Your task to perform on an android device: turn on priority inbox in the gmail app Image 0: 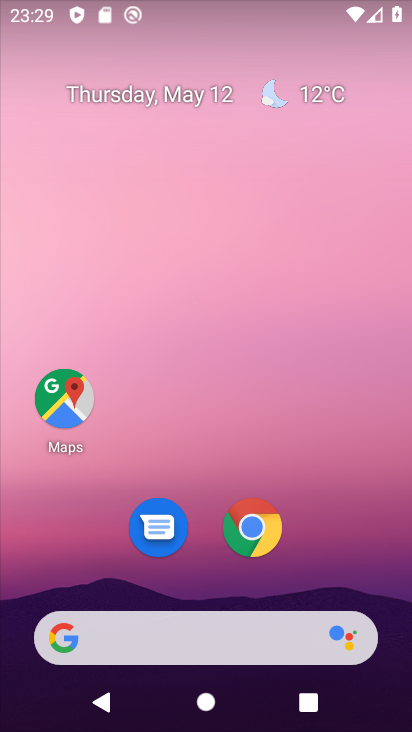
Step 0: drag from (40, 624) to (222, 176)
Your task to perform on an android device: turn on priority inbox in the gmail app Image 1: 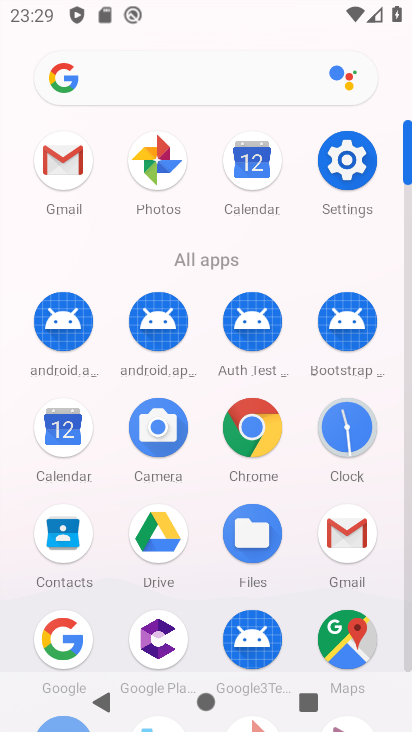
Step 1: click (51, 158)
Your task to perform on an android device: turn on priority inbox in the gmail app Image 2: 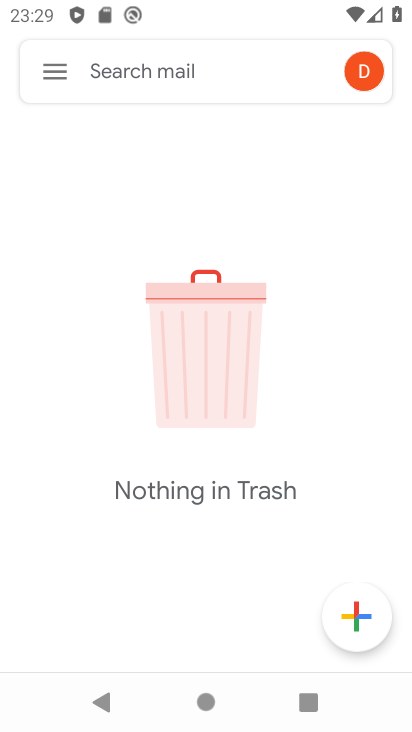
Step 2: click (64, 69)
Your task to perform on an android device: turn on priority inbox in the gmail app Image 3: 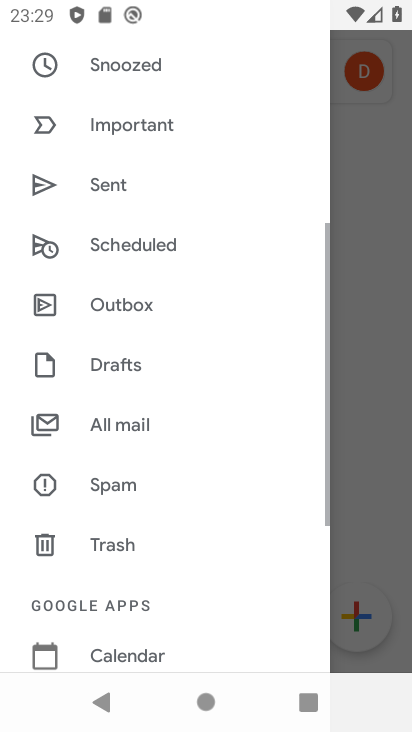
Step 3: click (105, 608)
Your task to perform on an android device: turn on priority inbox in the gmail app Image 4: 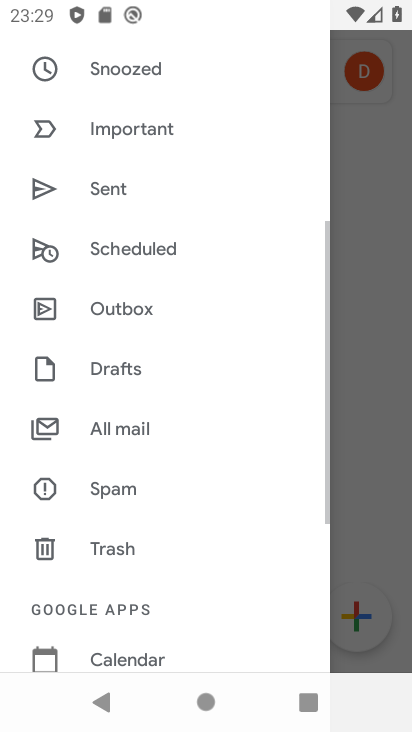
Step 4: drag from (113, 628) to (276, 122)
Your task to perform on an android device: turn on priority inbox in the gmail app Image 5: 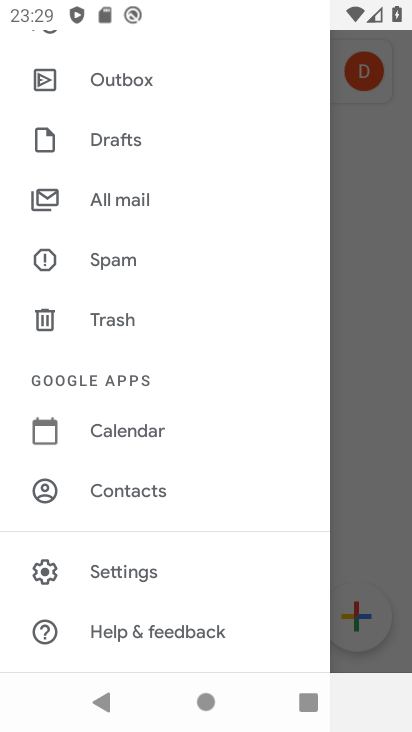
Step 5: click (107, 560)
Your task to perform on an android device: turn on priority inbox in the gmail app Image 6: 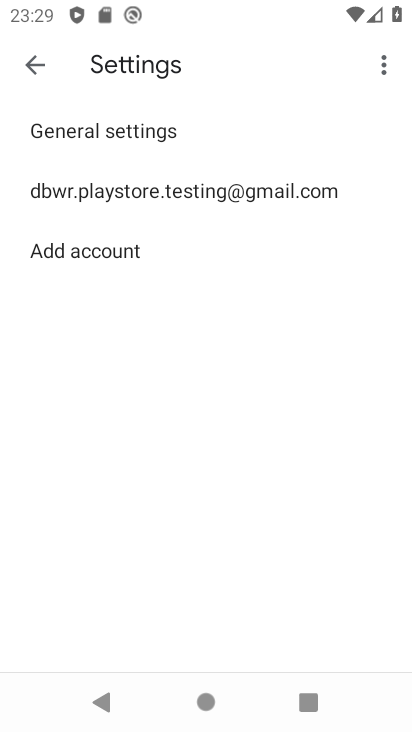
Step 6: click (108, 198)
Your task to perform on an android device: turn on priority inbox in the gmail app Image 7: 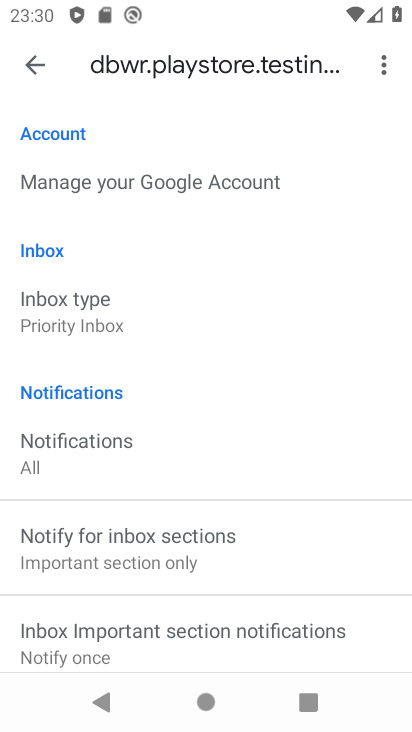
Step 7: click (40, 306)
Your task to perform on an android device: turn on priority inbox in the gmail app Image 8: 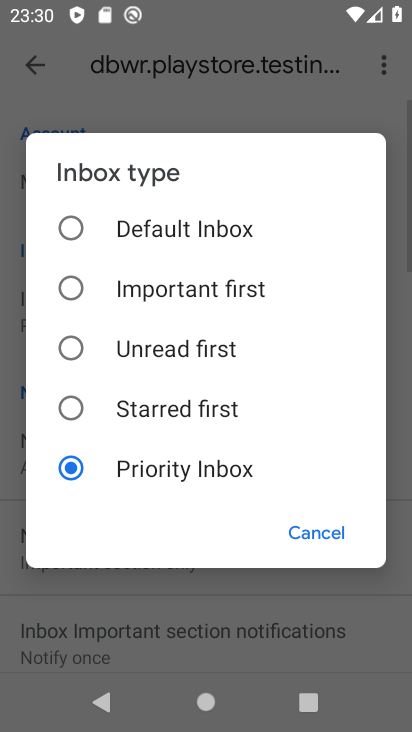
Step 8: click (204, 480)
Your task to perform on an android device: turn on priority inbox in the gmail app Image 9: 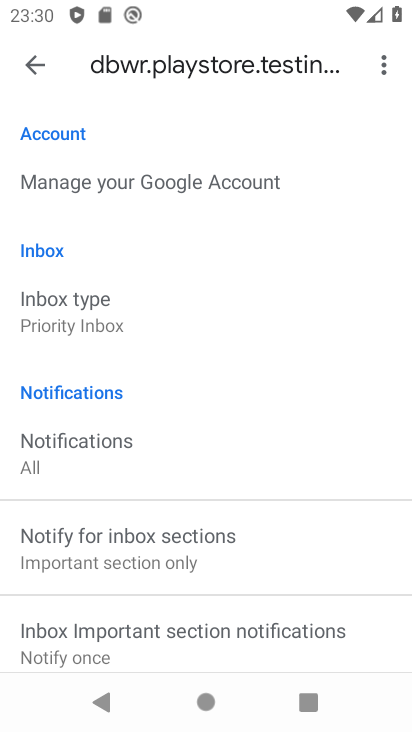
Step 9: task complete